Your task to perform on an android device: add a label to a message in the gmail app Image 0: 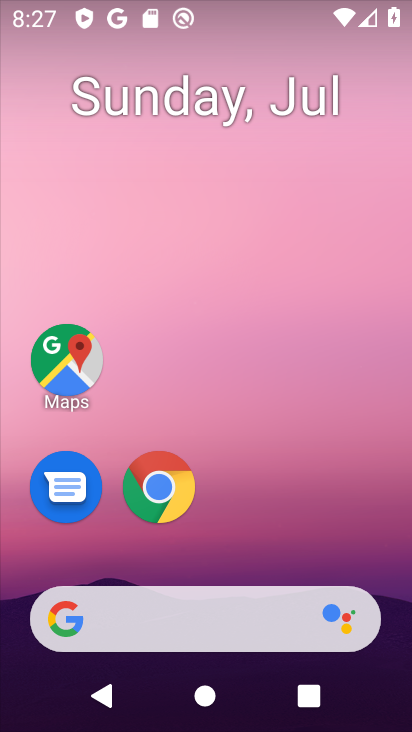
Step 0: drag from (262, 566) to (308, 5)
Your task to perform on an android device: add a label to a message in the gmail app Image 1: 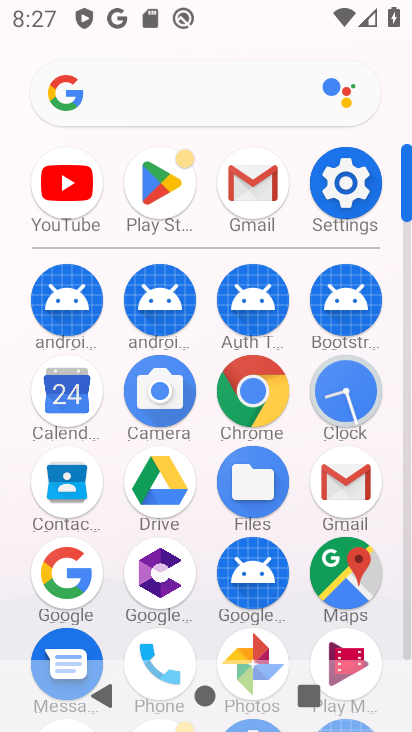
Step 1: click (240, 160)
Your task to perform on an android device: add a label to a message in the gmail app Image 2: 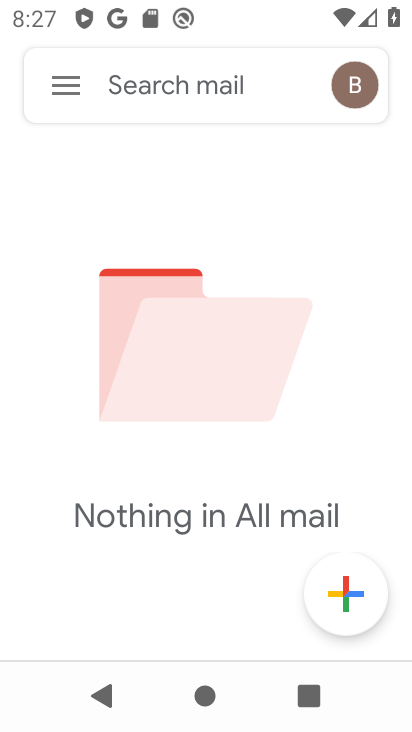
Step 2: task complete